Your task to perform on an android device: change notifications settings Image 0: 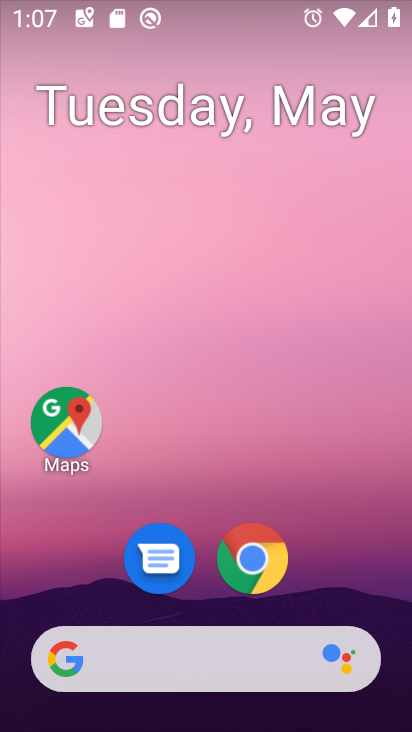
Step 0: drag from (389, 623) to (303, 113)
Your task to perform on an android device: change notifications settings Image 1: 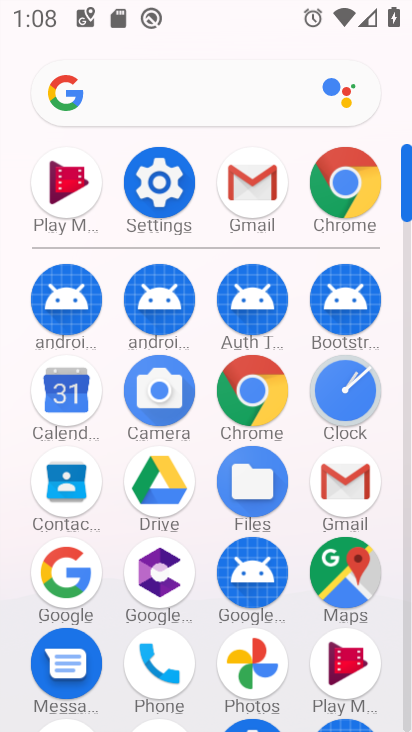
Step 1: click (173, 174)
Your task to perform on an android device: change notifications settings Image 2: 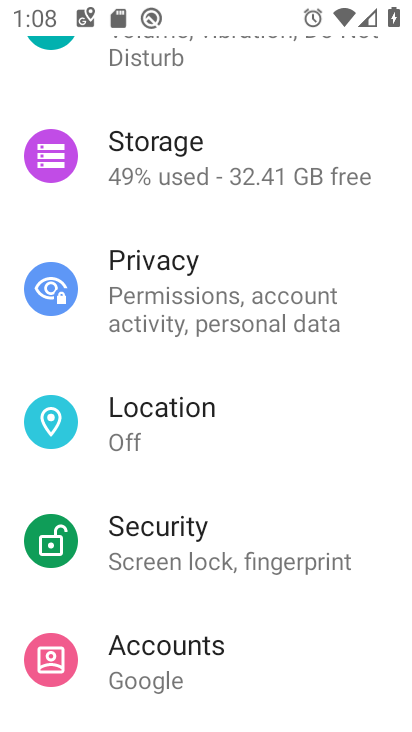
Step 2: drag from (174, 175) to (176, 687)
Your task to perform on an android device: change notifications settings Image 3: 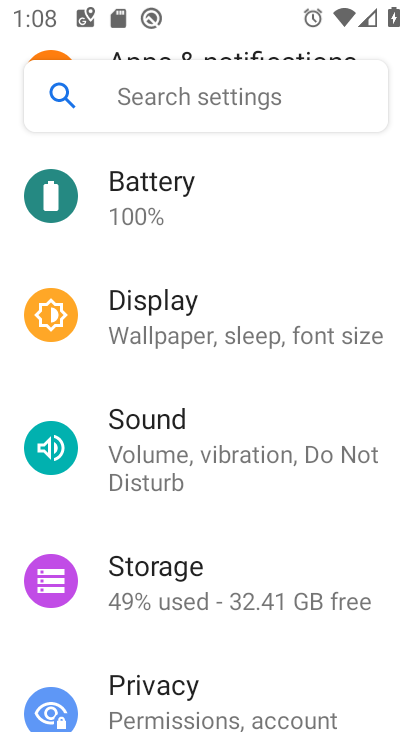
Step 3: drag from (192, 227) to (227, 709)
Your task to perform on an android device: change notifications settings Image 4: 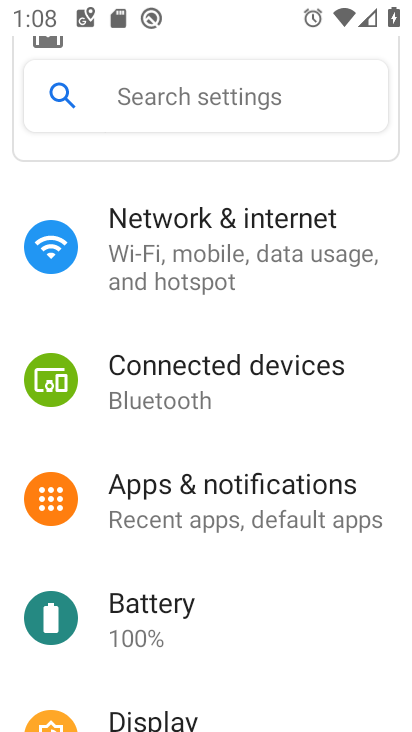
Step 4: click (231, 492)
Your task to perform on an android device: change notifications settings Image 5: 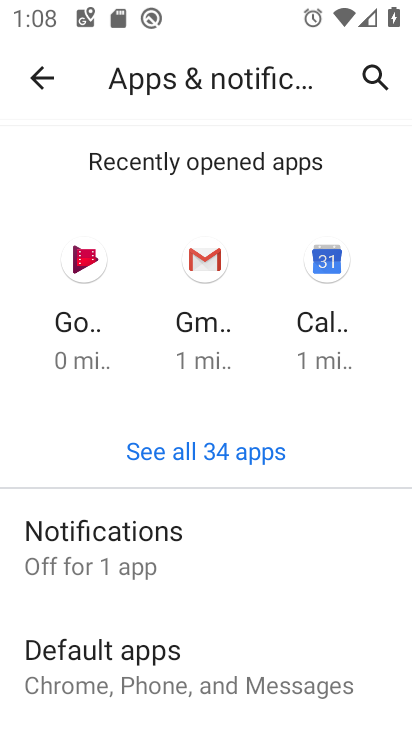
Step 5: click (247, 543)
Your task to perform on an android device: change notifications settings Image 6: 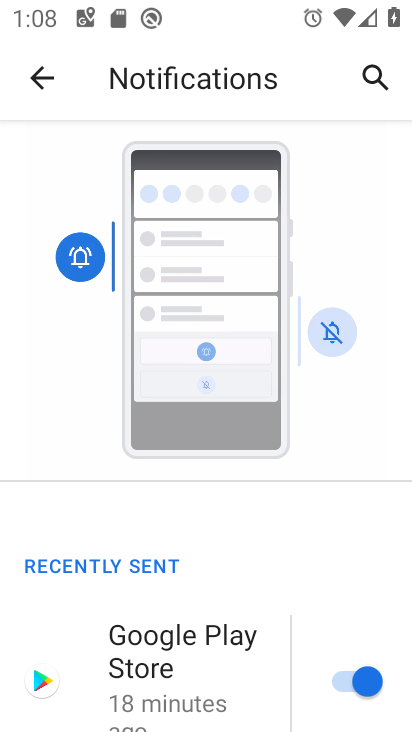
Step 6: task complete